Your task to perform on an android device: Clear all items from cart on amazon.com. Image 0: 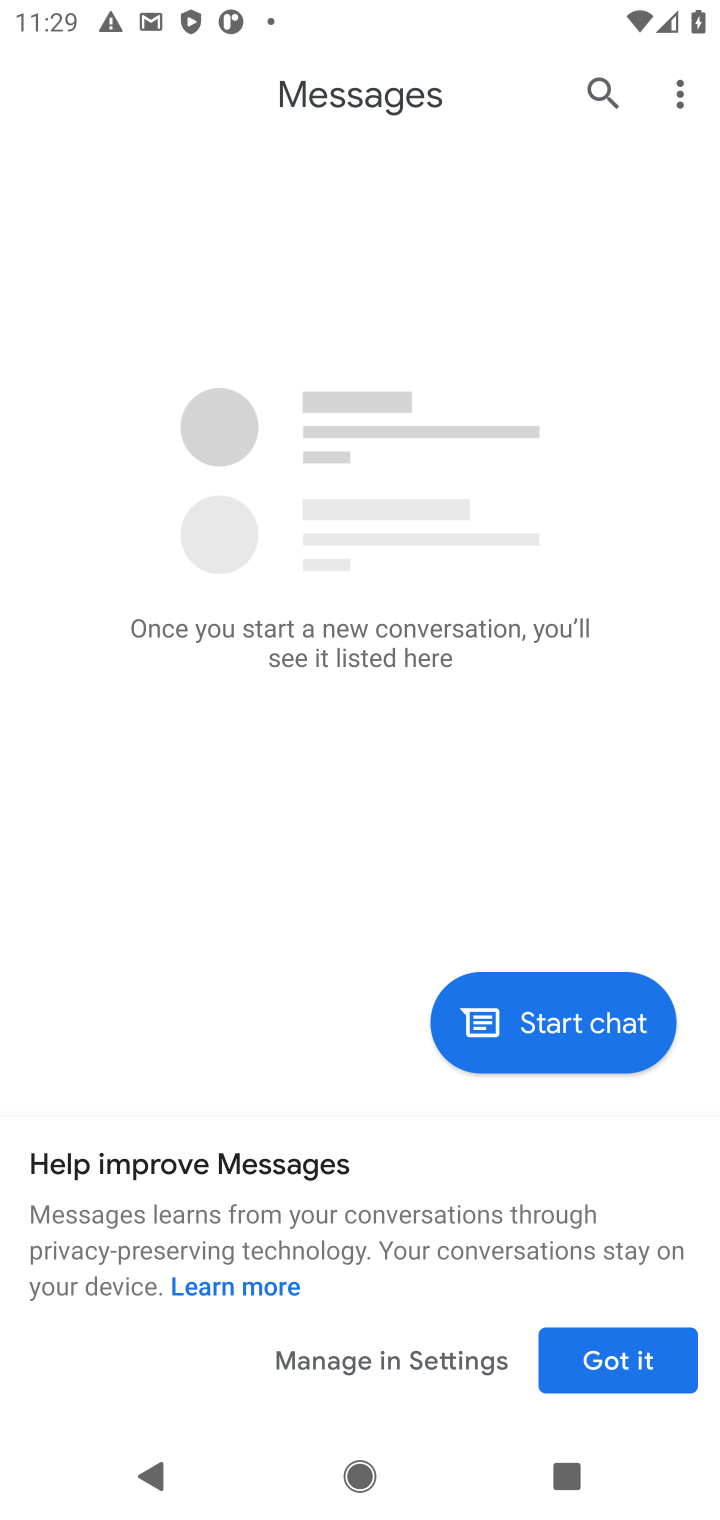
Step 0: click (642, 1355)
Your task to perform on an android device: Clear all items from cart on amazon.com. Image 1: 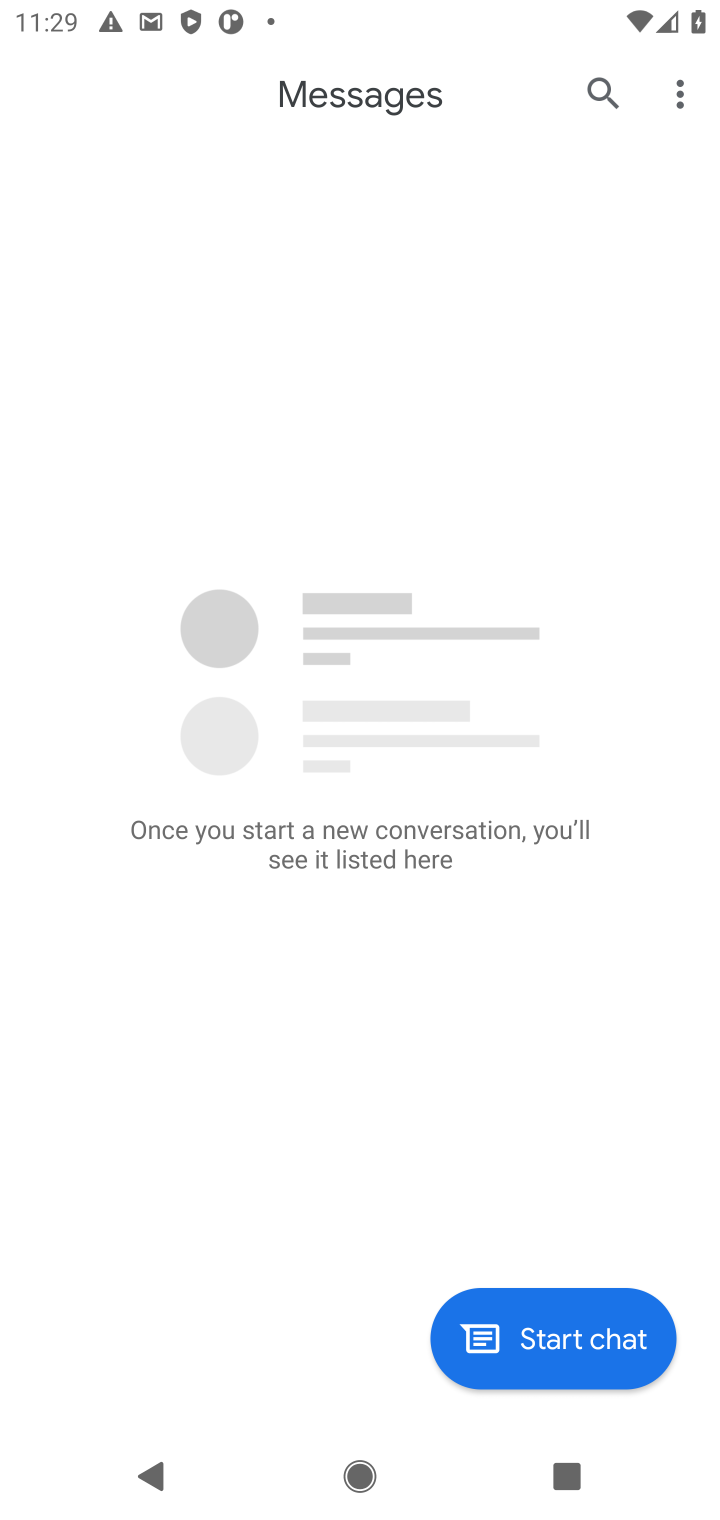
Step 1: press back button
Your task to perform on an android device: Clear all items from cart on amazon.com. Image 2: 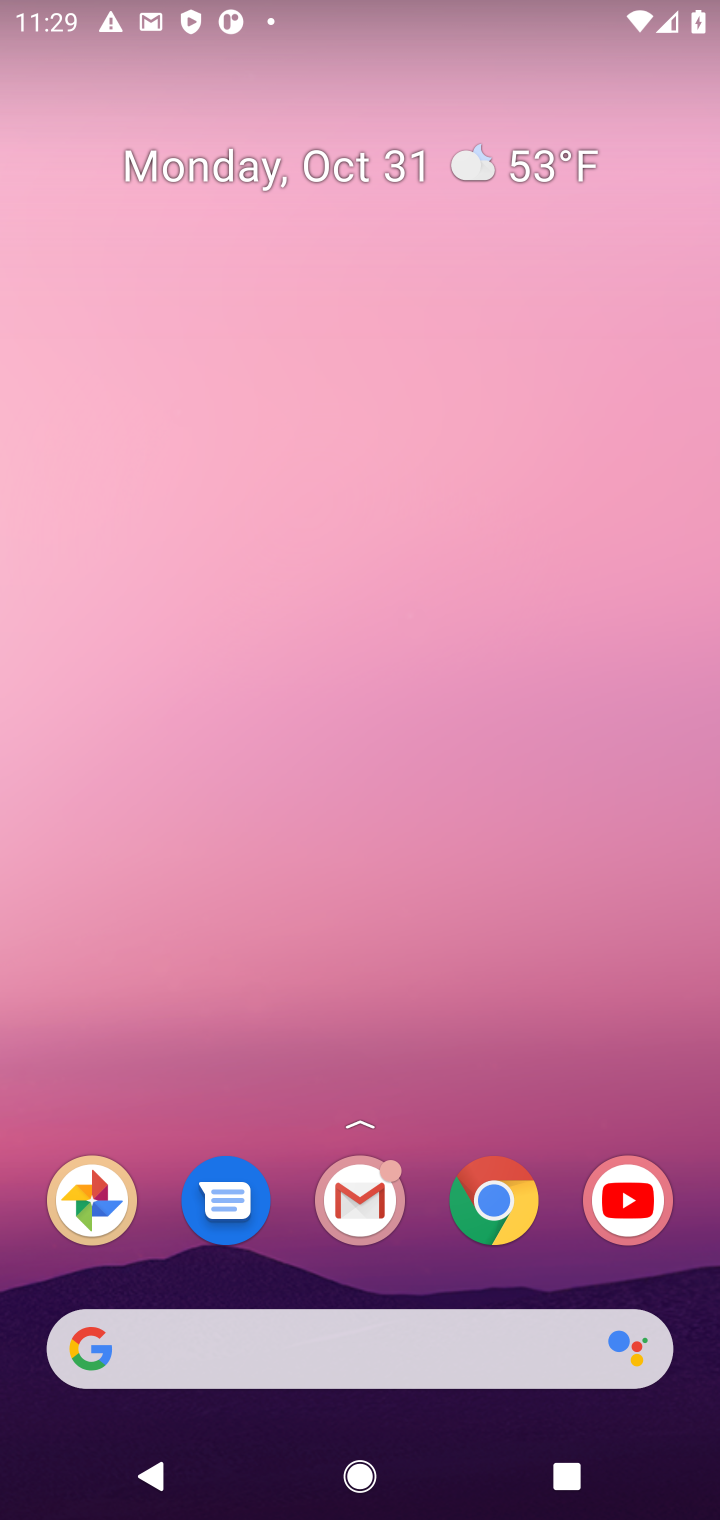
Step 2: press home button
Your task to perform on an android device: Clear all items from cart on amazon.com. Image 3: 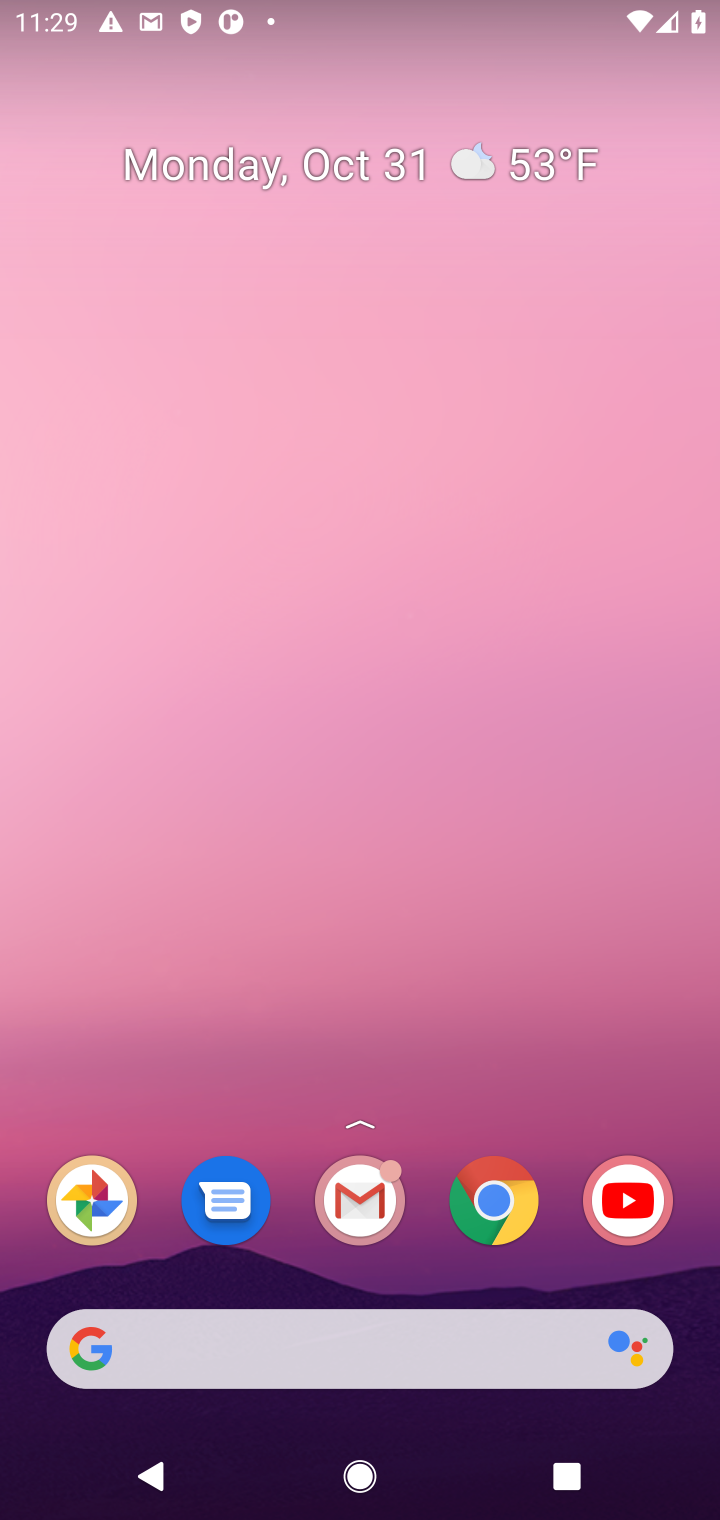
Step 3: click (488, 1199)
Your task to perform on an android device: Clear all items from cart on amazon.com. Image 4: 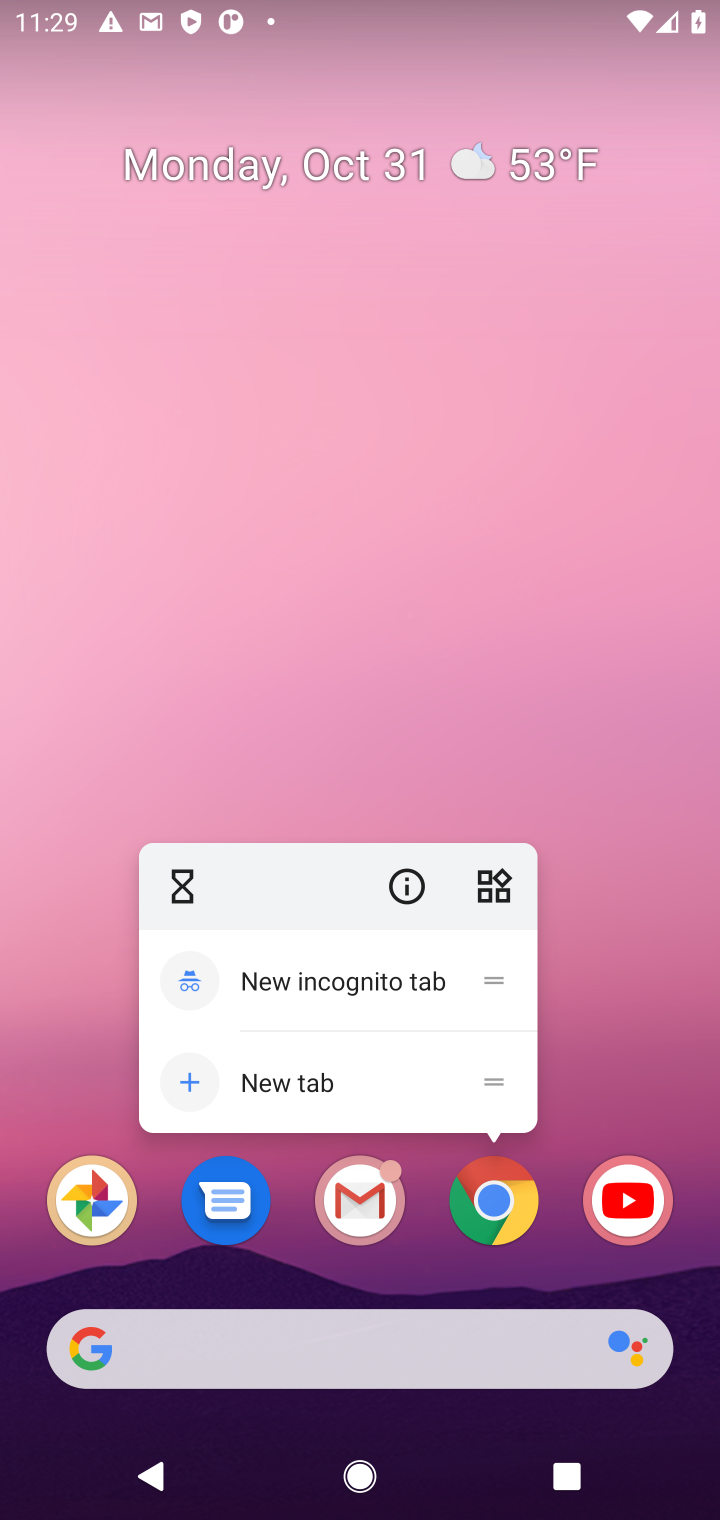
Step 4: click (490, 1213)
Your task to perform on an android device: Clear all items from cart on amazon.com. Image 5: 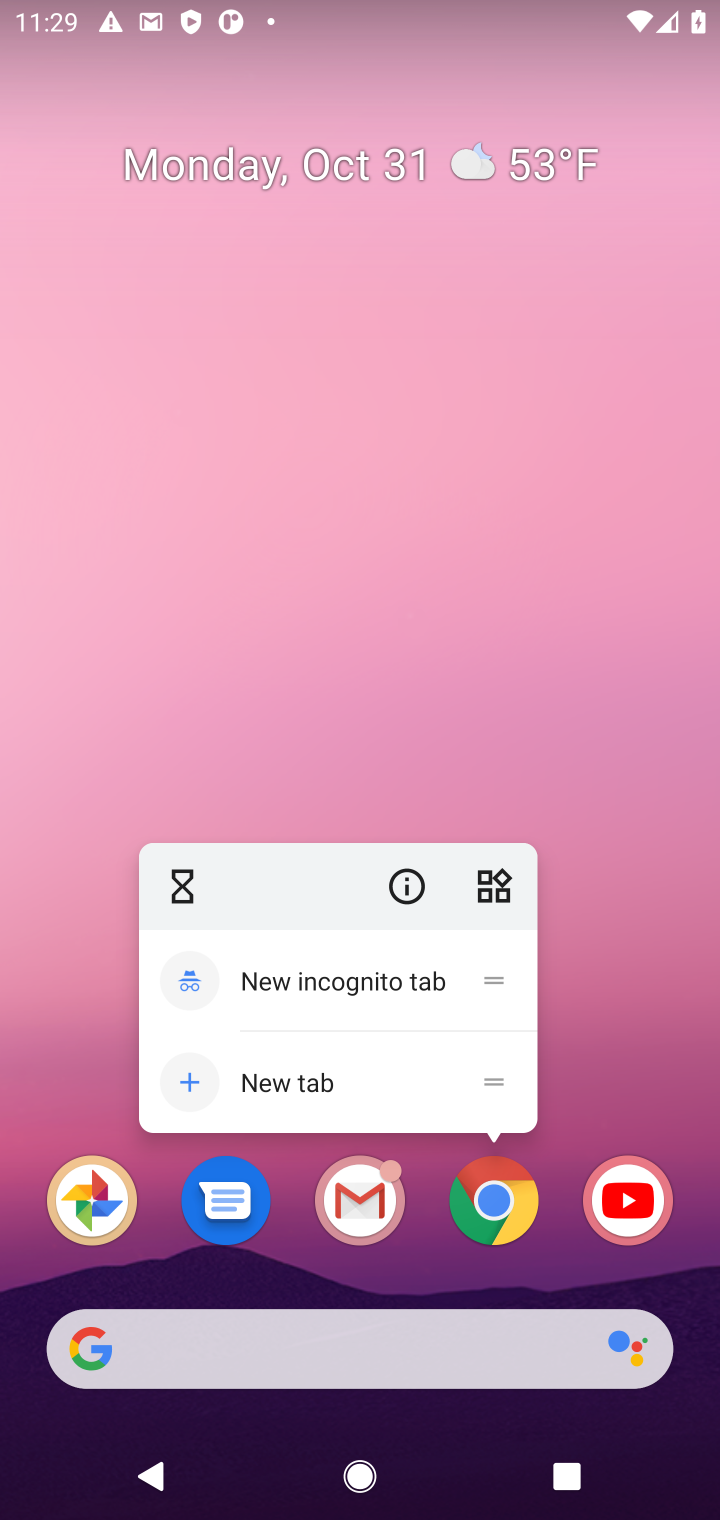
Step 5: click (494, 1223)
Your task to perform on an android device: Clear all items from cart on amazon.com. Image 6: 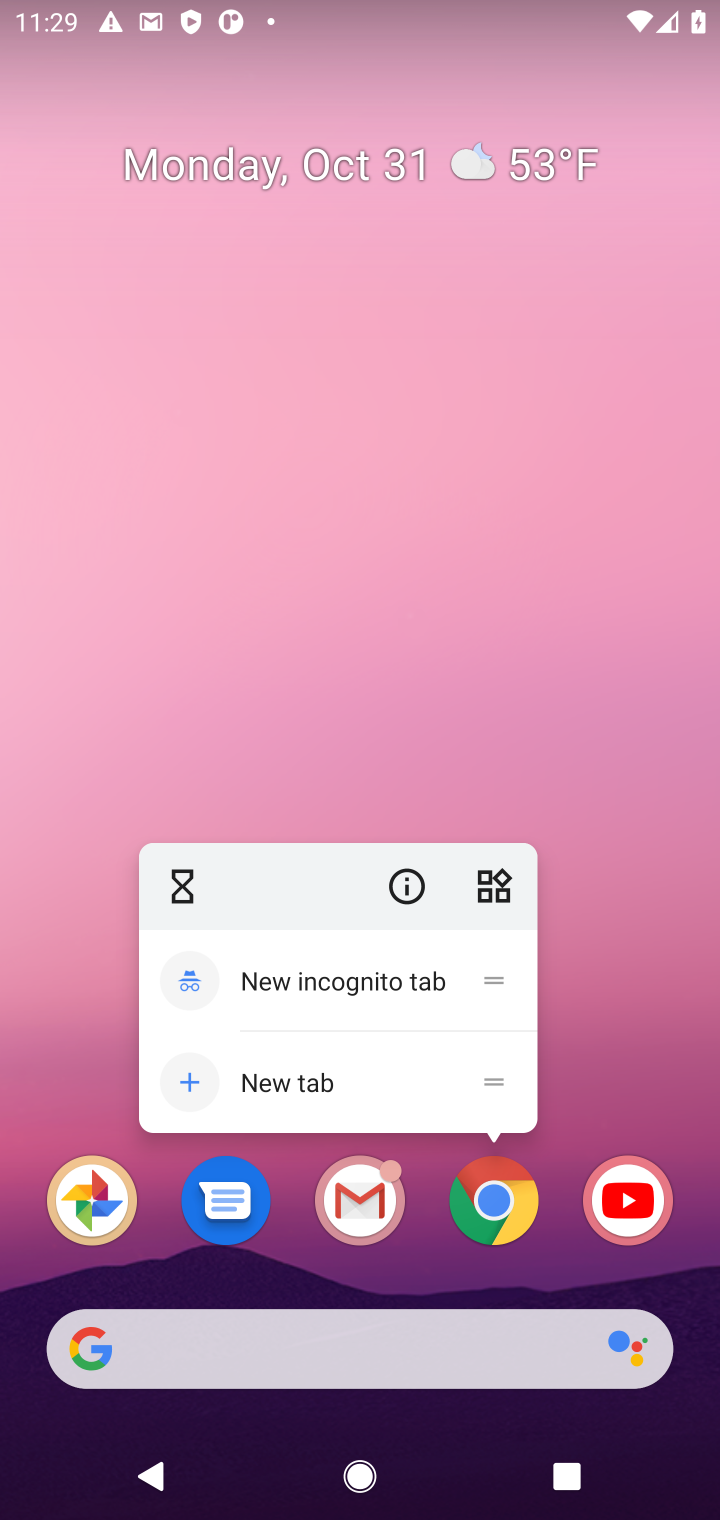
Step 6: click (500, 1213)
Your task to perform on an android device: Clear all items from cart on amazon.com. Image 7: 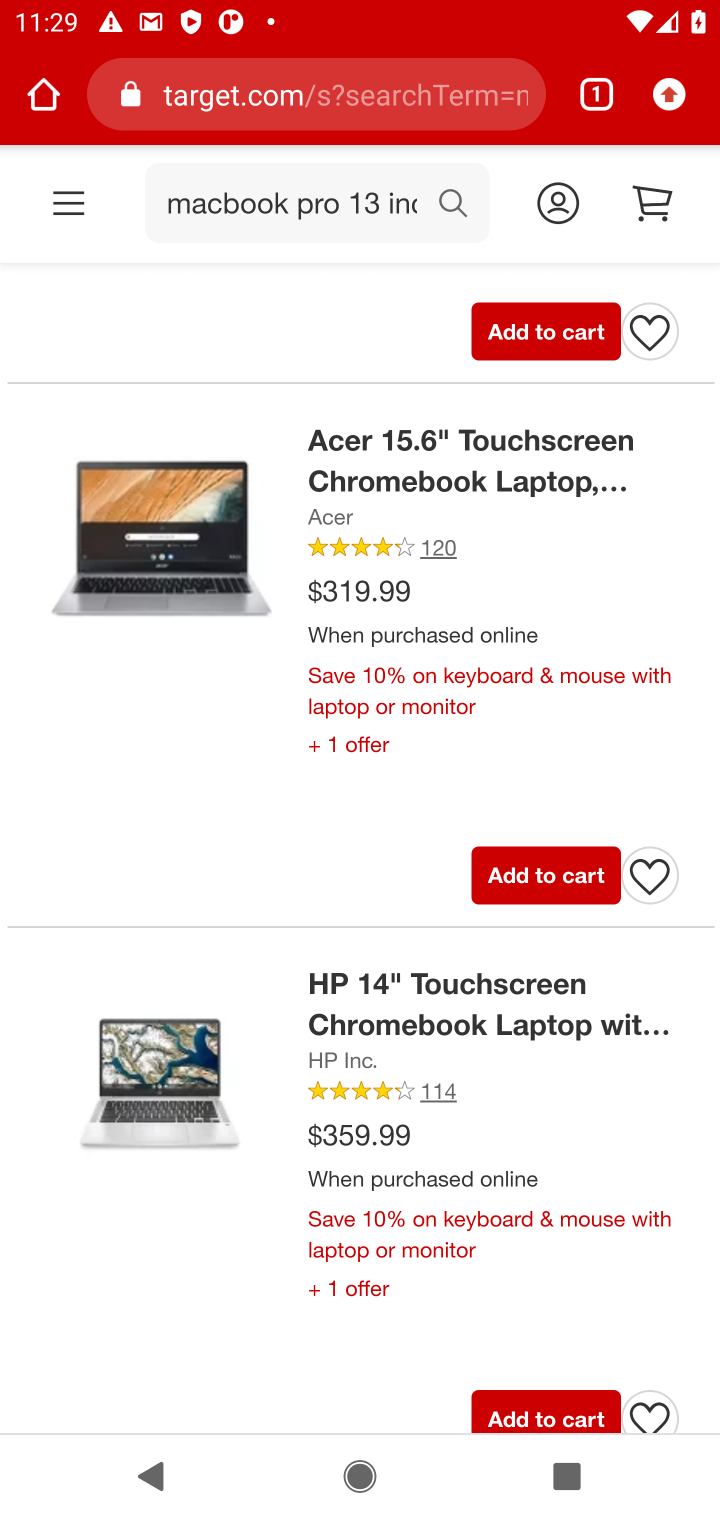
Step 7: click (240, 97)
Your task to perform on an android device: Clear all items from cart on amazon.com. Image 8: 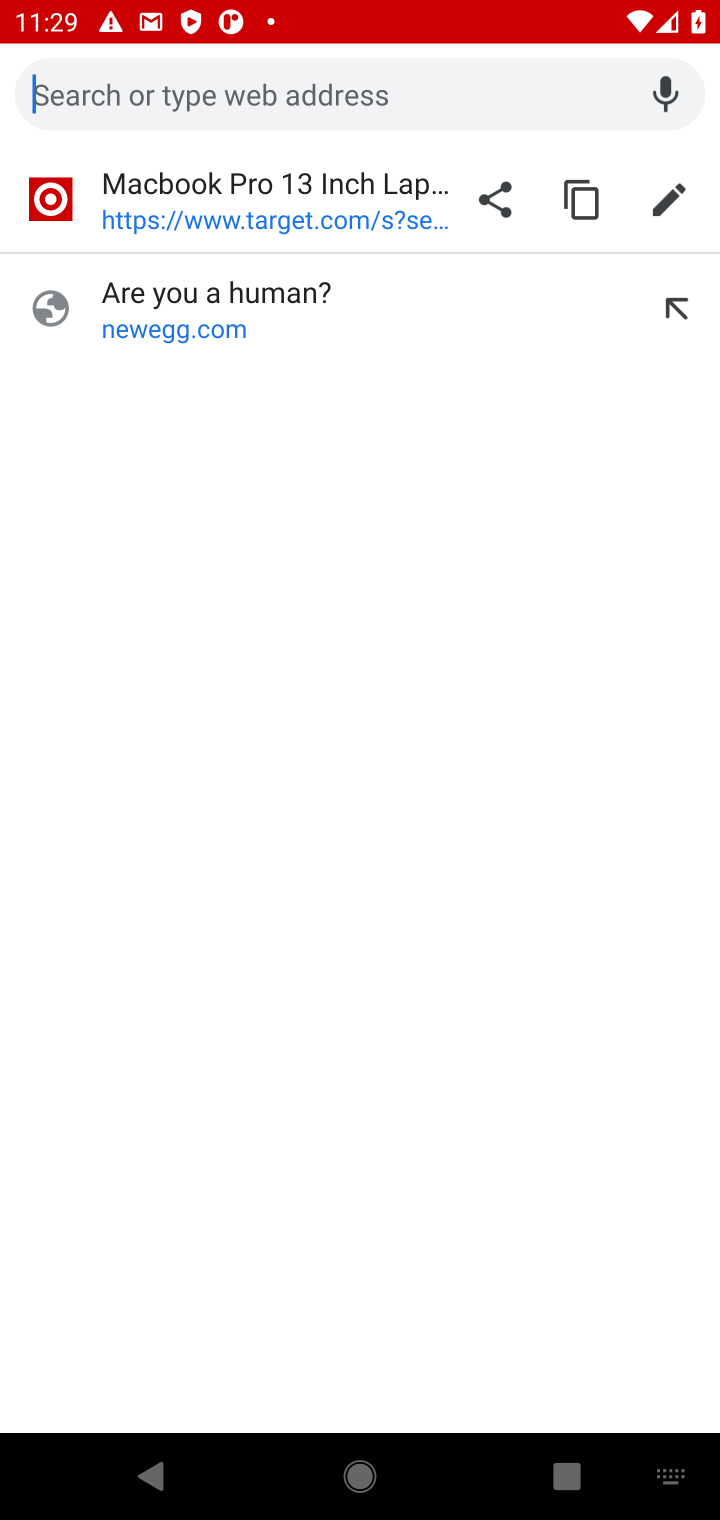
Step 8: type "amazon.com"
Your task to perform on an android device: Clear all items from cart on amazon.com. Image 9: 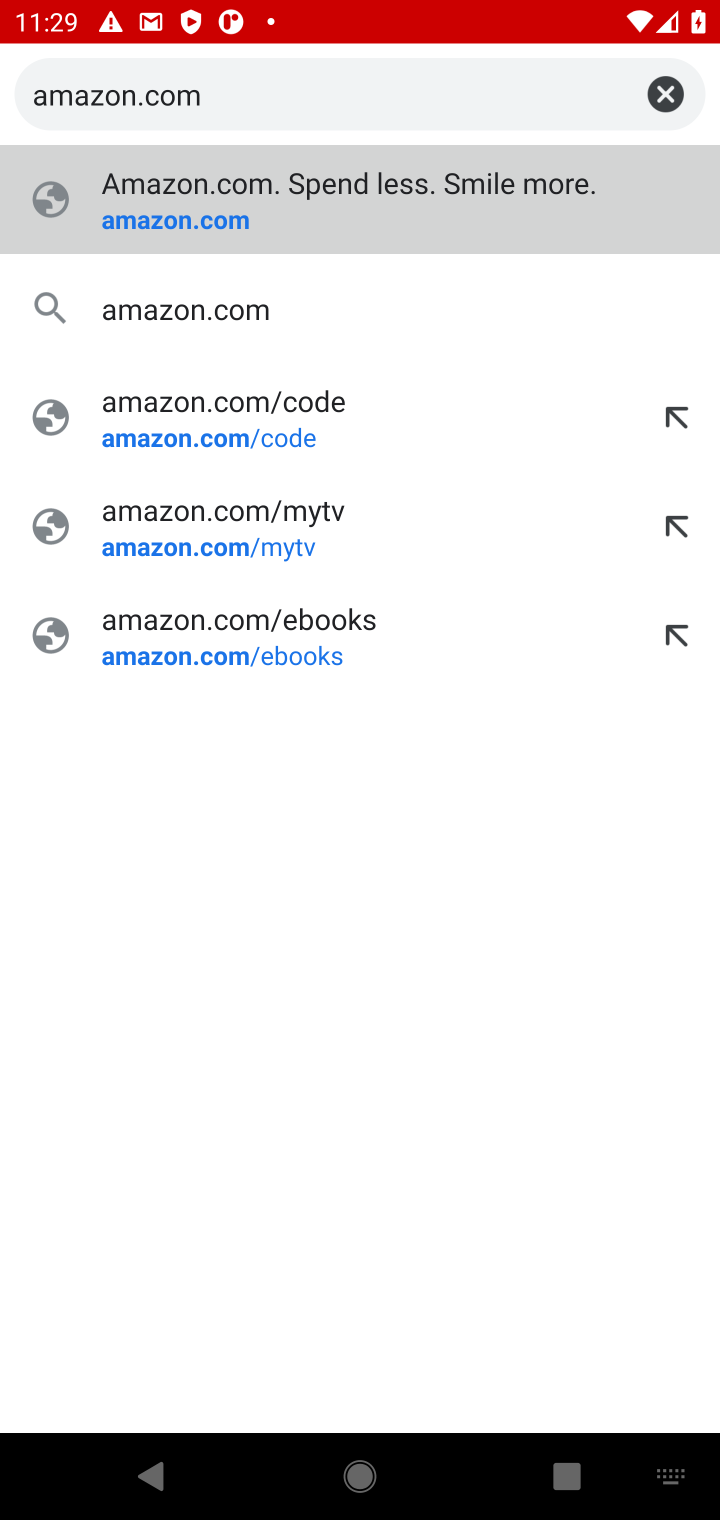
Step 9: type ""
Your task to perform on an android device: Clear all items from cart on amazon.com. Image 10: 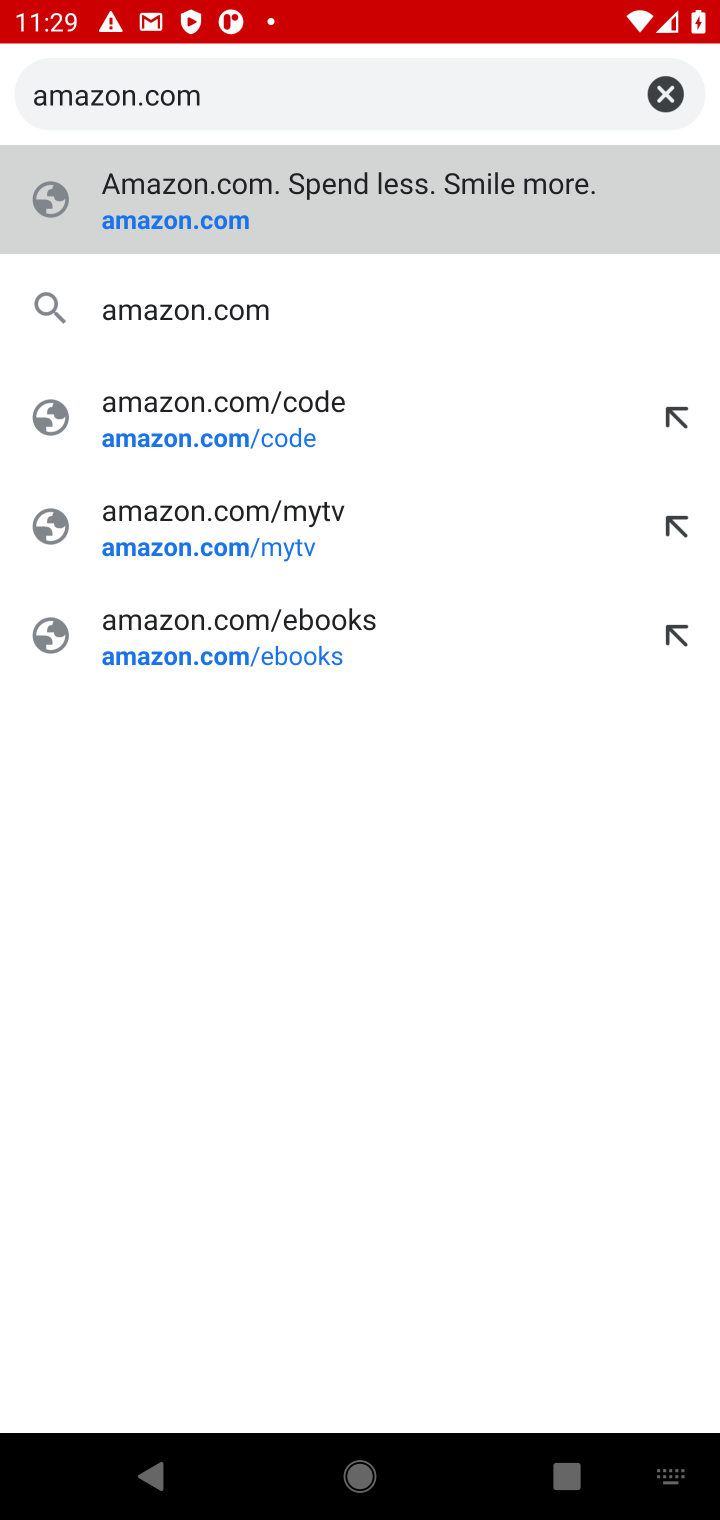
Step 10: click (380, 182)
Your task to perform on an android device: Clear all items from cart on amazon.com. Image 11: 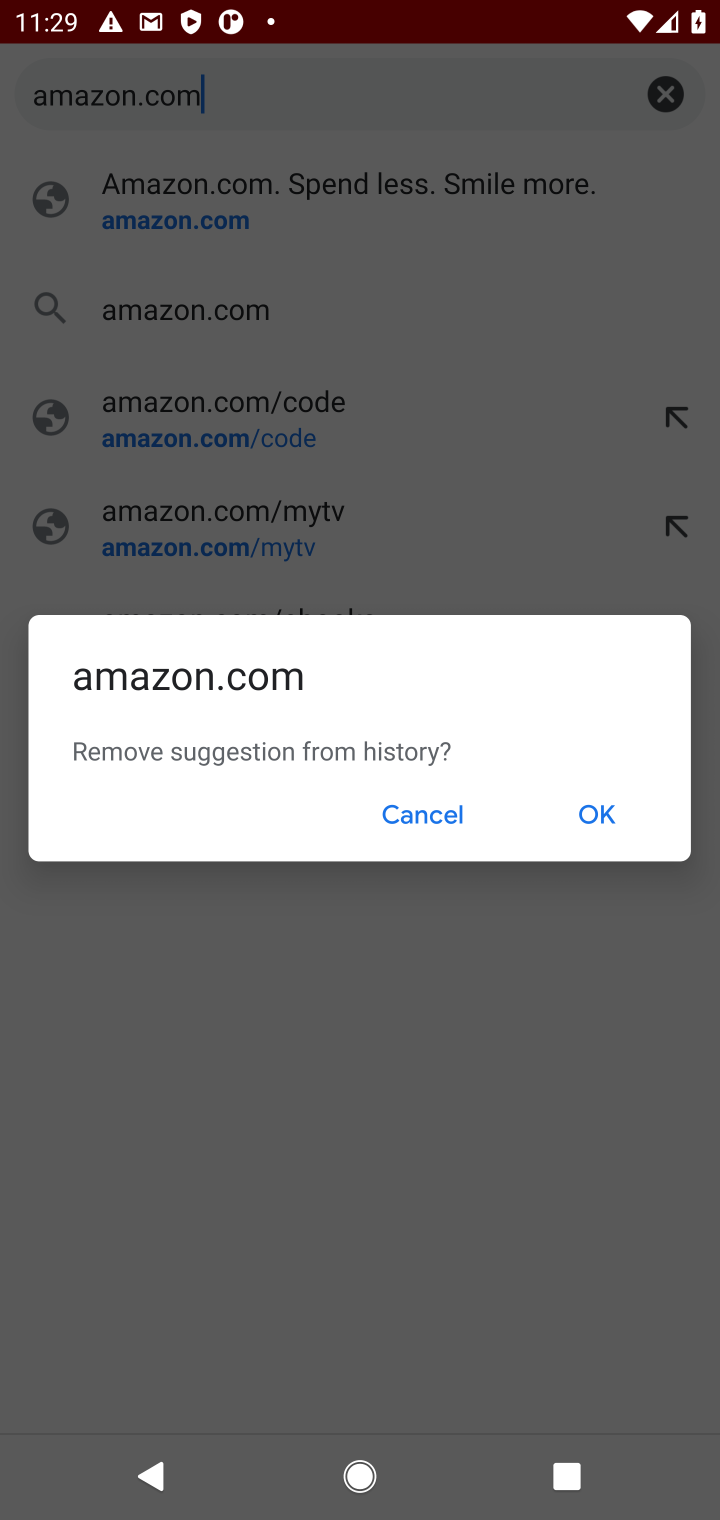
Step 11: click (457, 812)
Your task to perform on an android device: Clear all items from cart on amazon.com. Image 12: 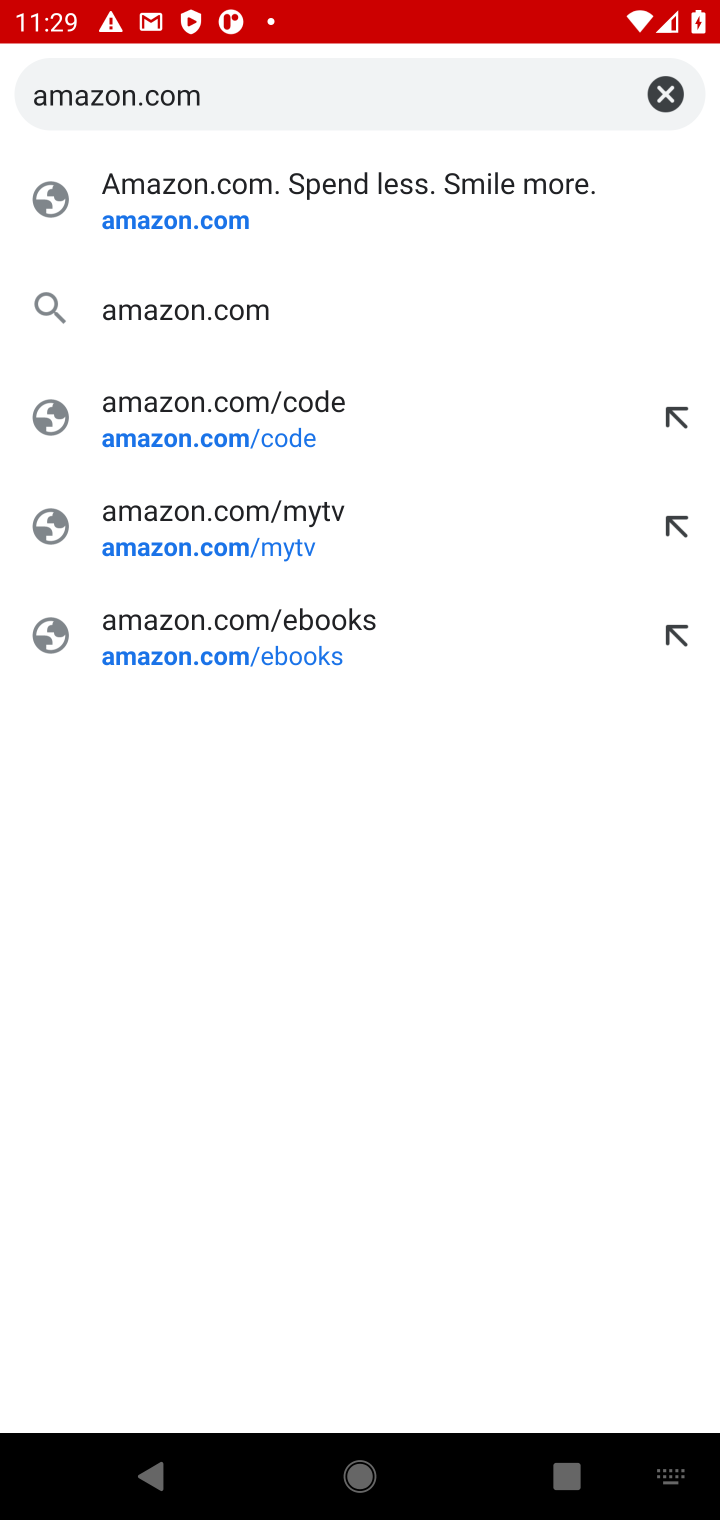
Step 12: click (283, 178)
Your task to perform on an android device: Clear all items from cart on amazon.com. Image 13: 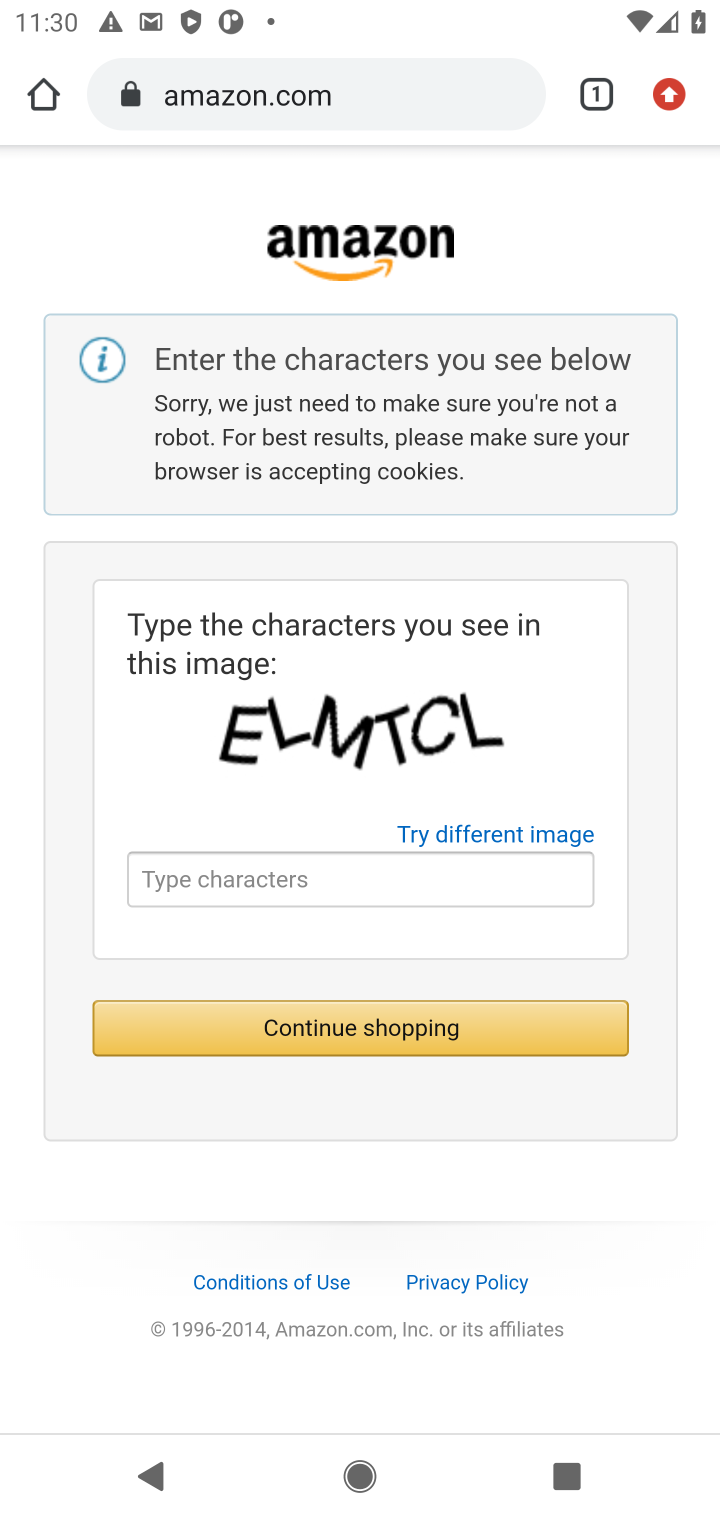
Step 13: click (269, 873)
Your task to perform on an android device: Clear all items from cart on amazon.com. Image 14: 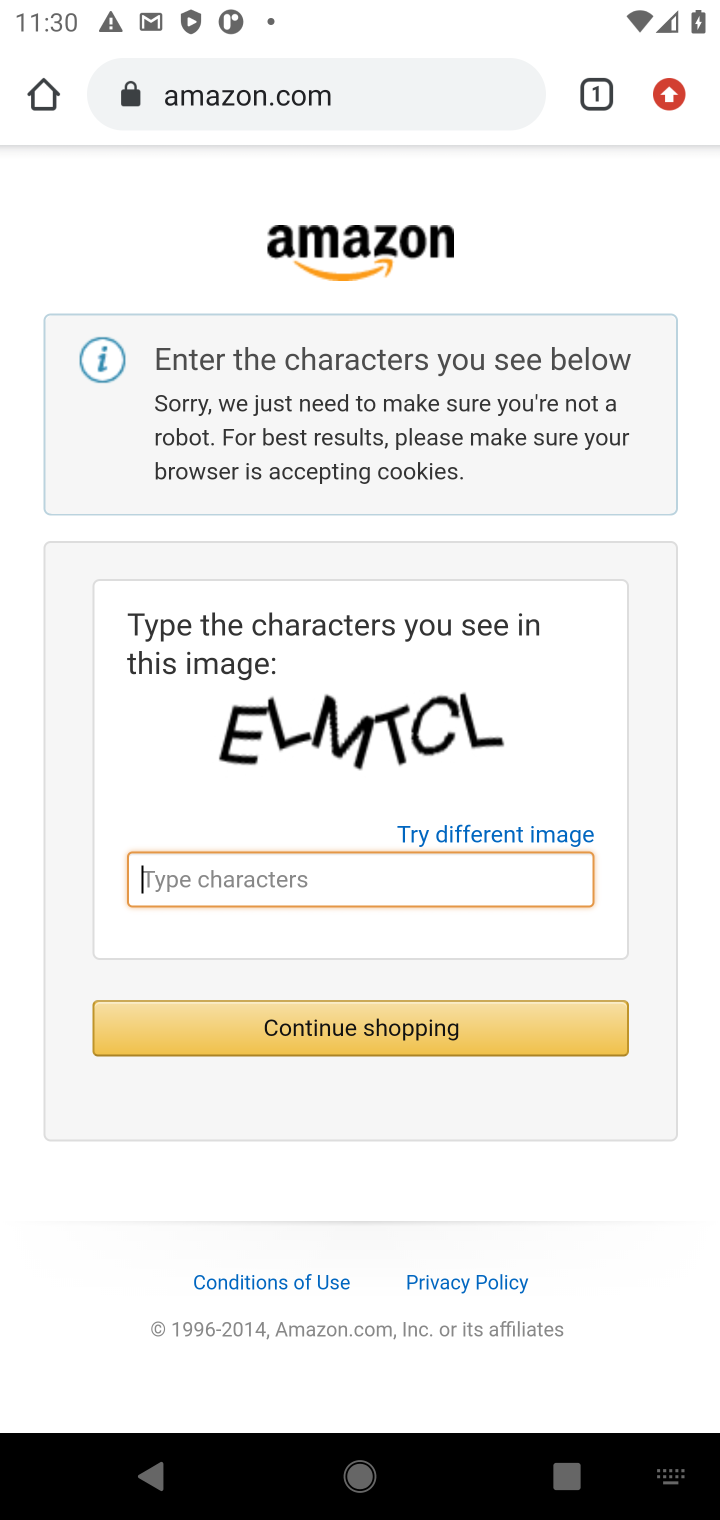
Step 14: type "ELMTCL"
Your task to perform on an android device: Clear all items from cart on amazon.com. Image 15: 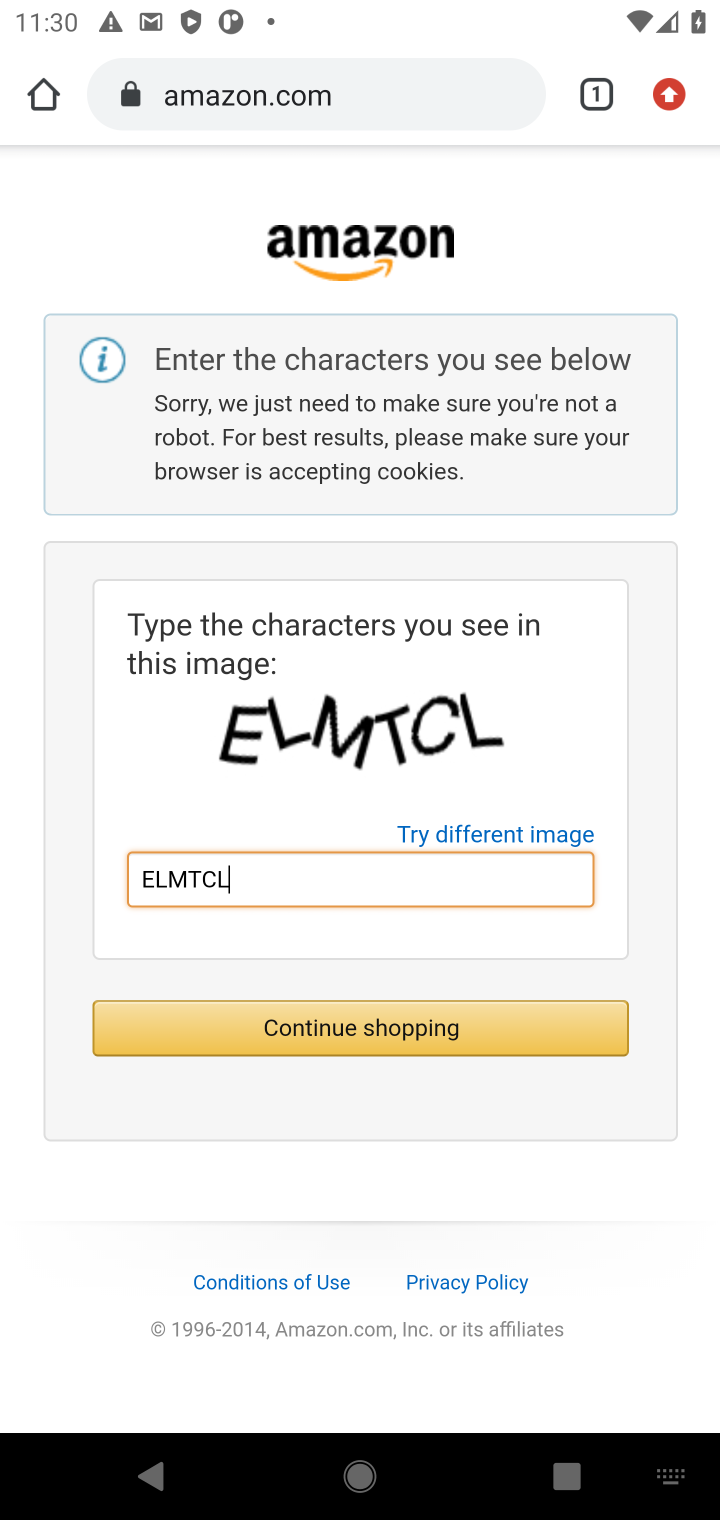
Step 15: type ""
Your task to perform on an android device: Clear all items from cart on amazon.com. Image 16: 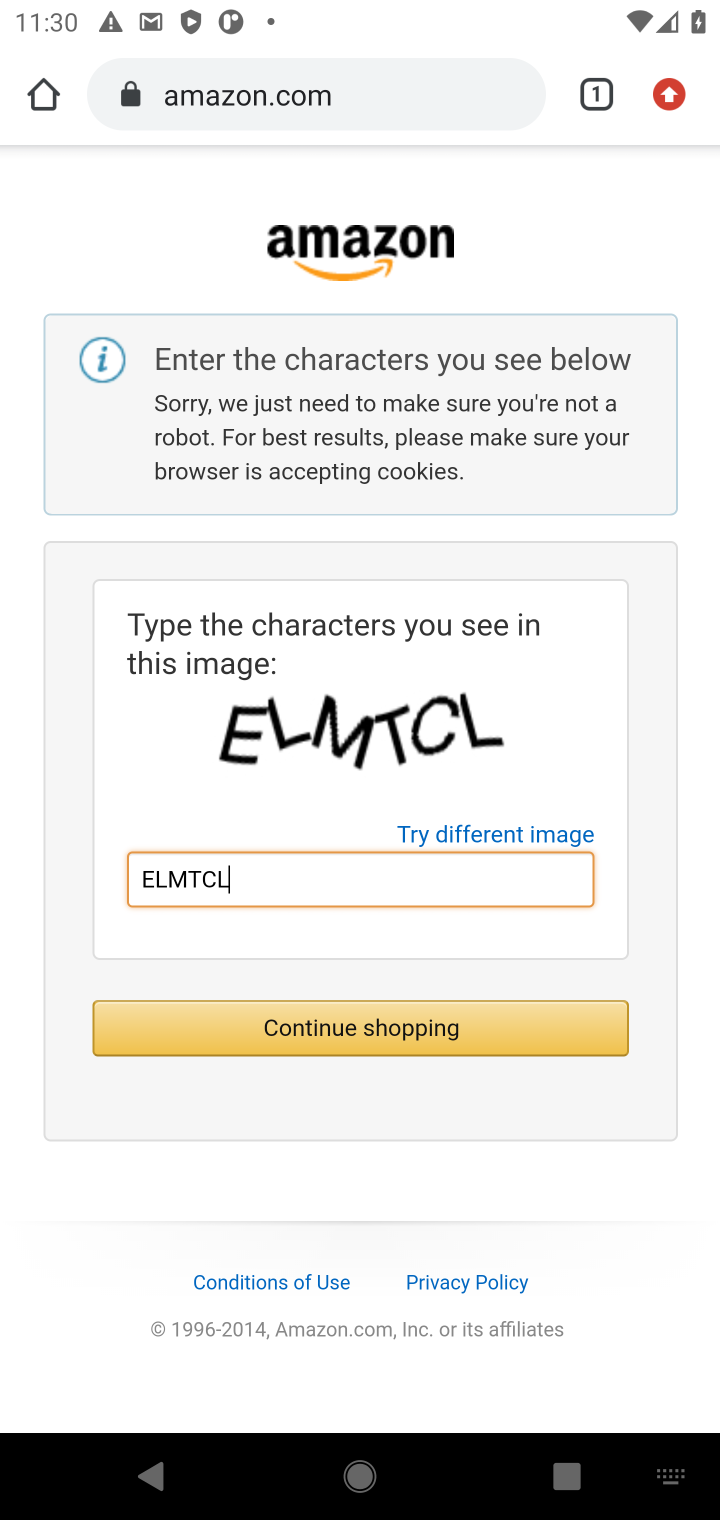
Step 16: click (323, 1000)
Your task to perform on an android device: Clear all items from cart on amazon.com. Image 17: 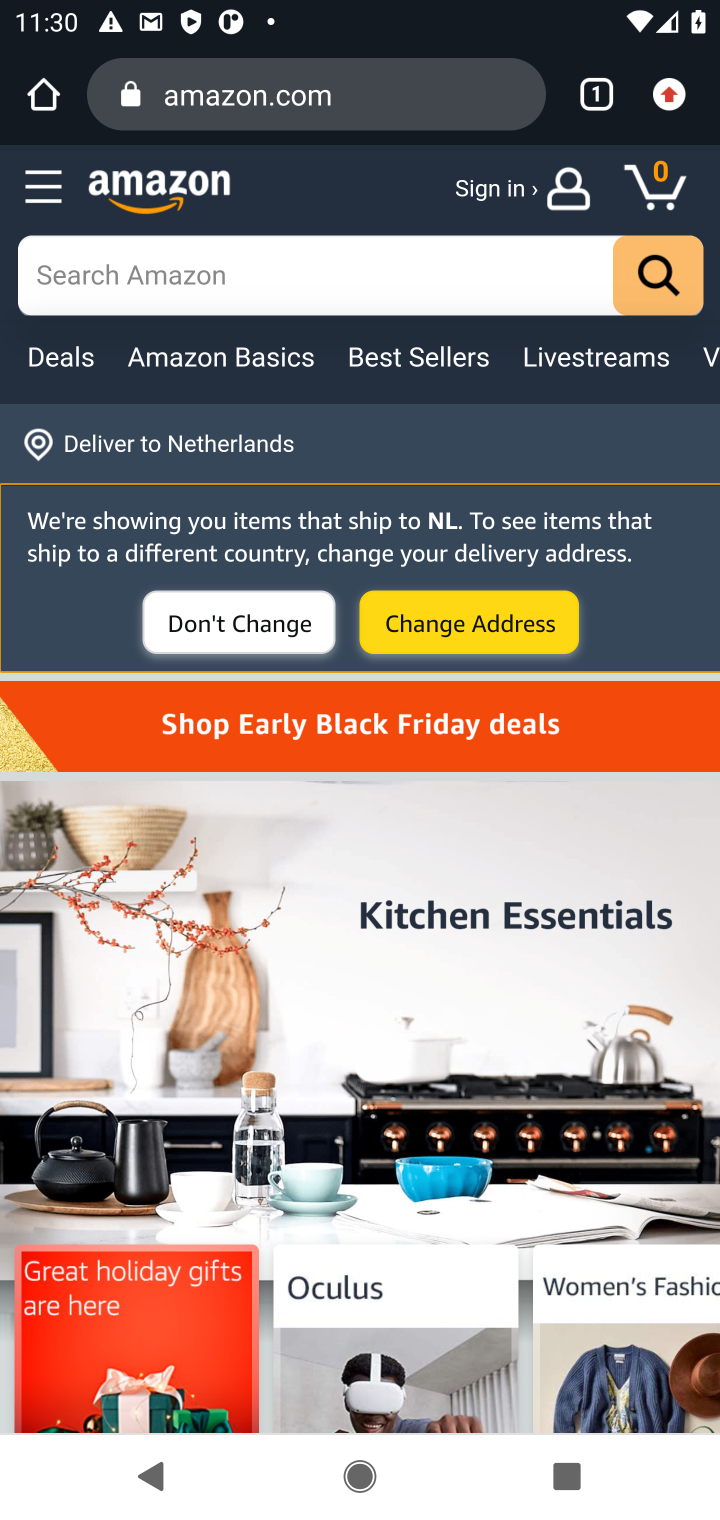
Step 17: click (647, 182)
Your task to perform on an android device: Clear all items from cart on amazon.com. Image 18: 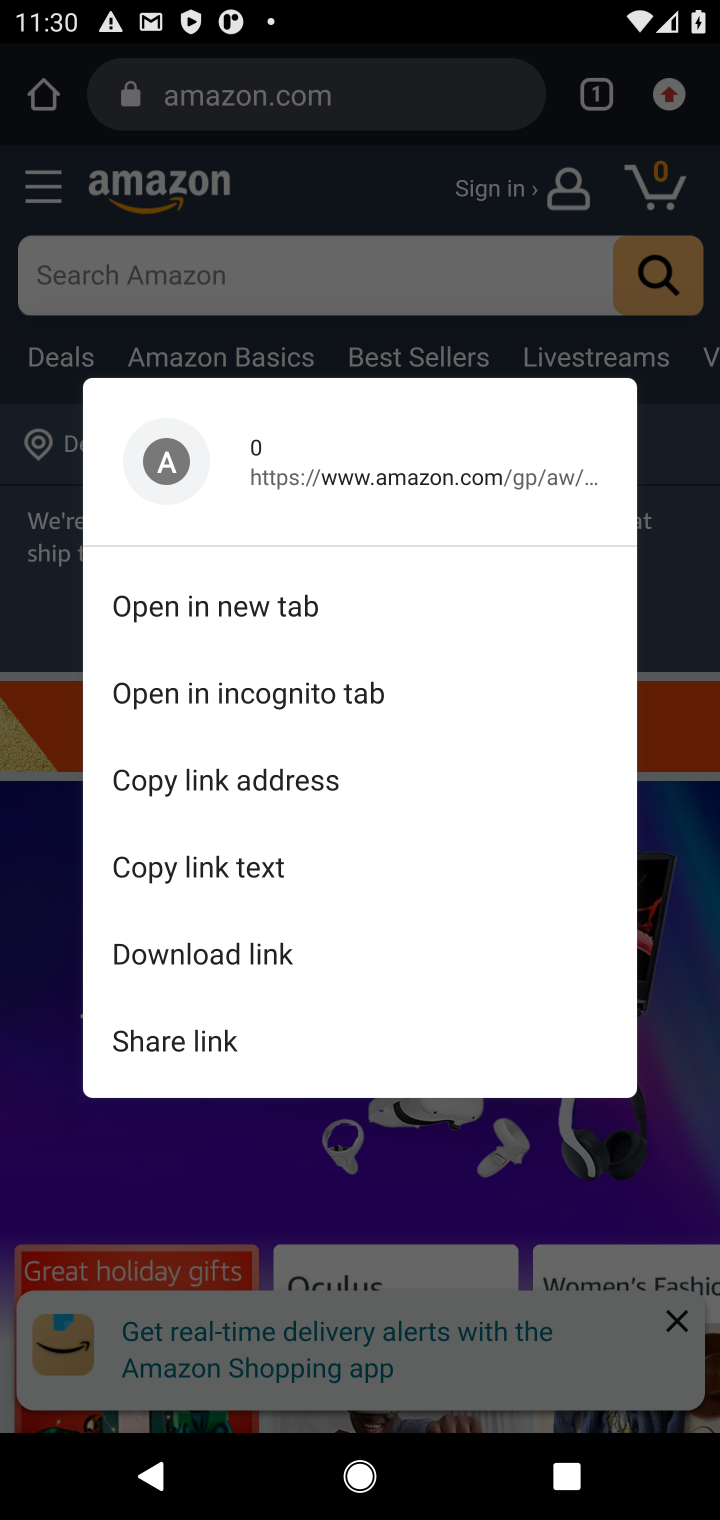
Step 18: click (647, 182)
Your task to perform on an android device: Clear all items from cart on amazon.com. Image 19: 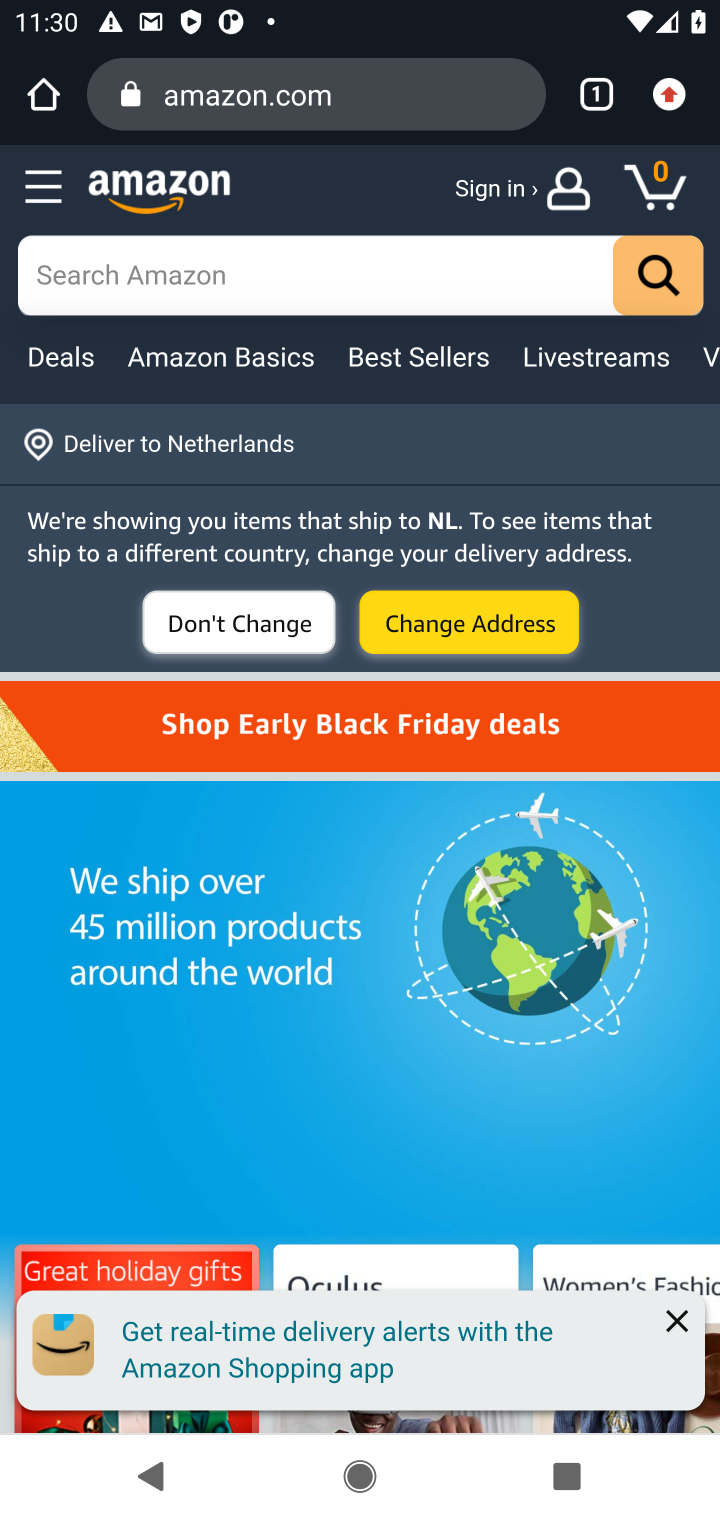
Step 19: click (647, 182)
Your task to perform on an android device: Clear all items from cart on amazon.com. Image 20: 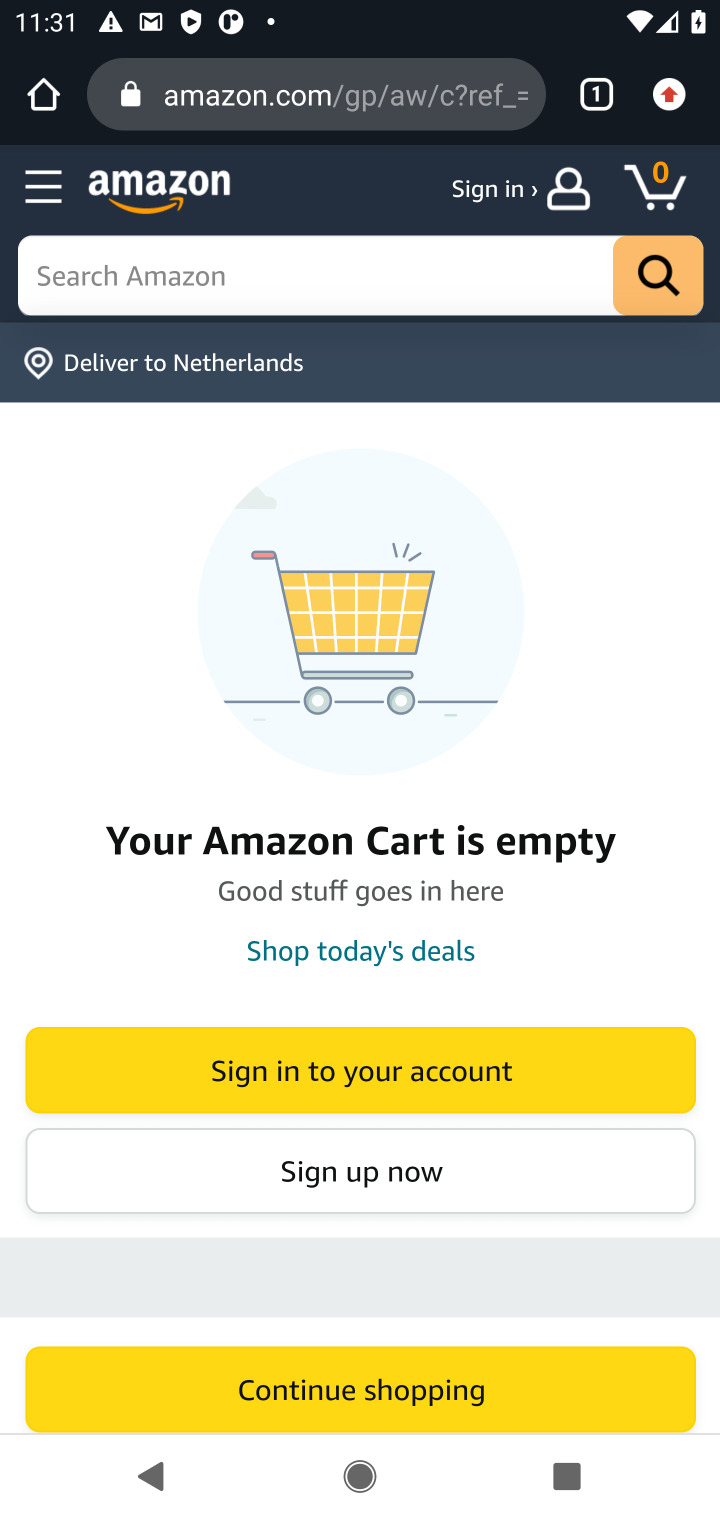
Step 20: click (684, 192)
Your task to perform on an android device: Clear all items from cart on amazon.com. Image 21: 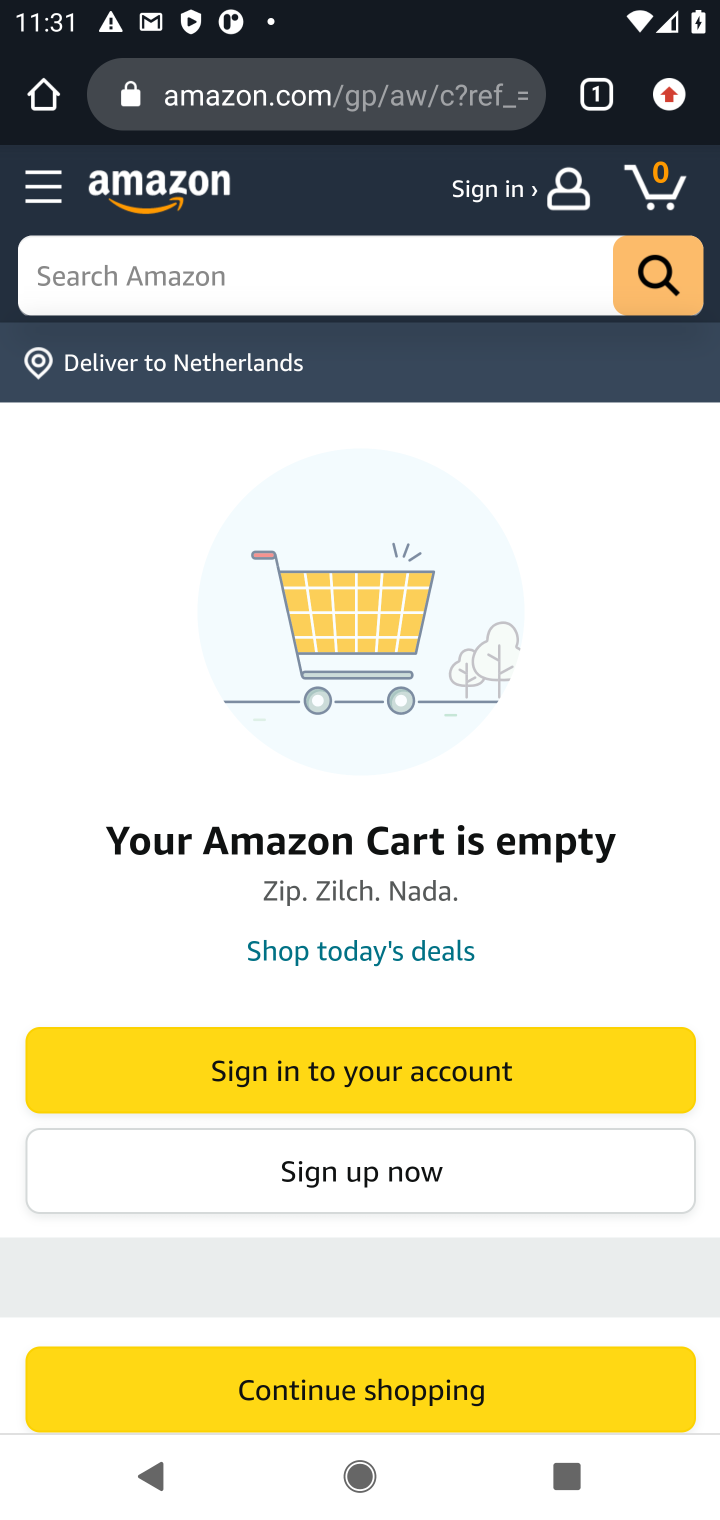
Step 21: click (547, 705)
Your task to perform on an android device: Clear all items from cart on amazon.com. Image 22: 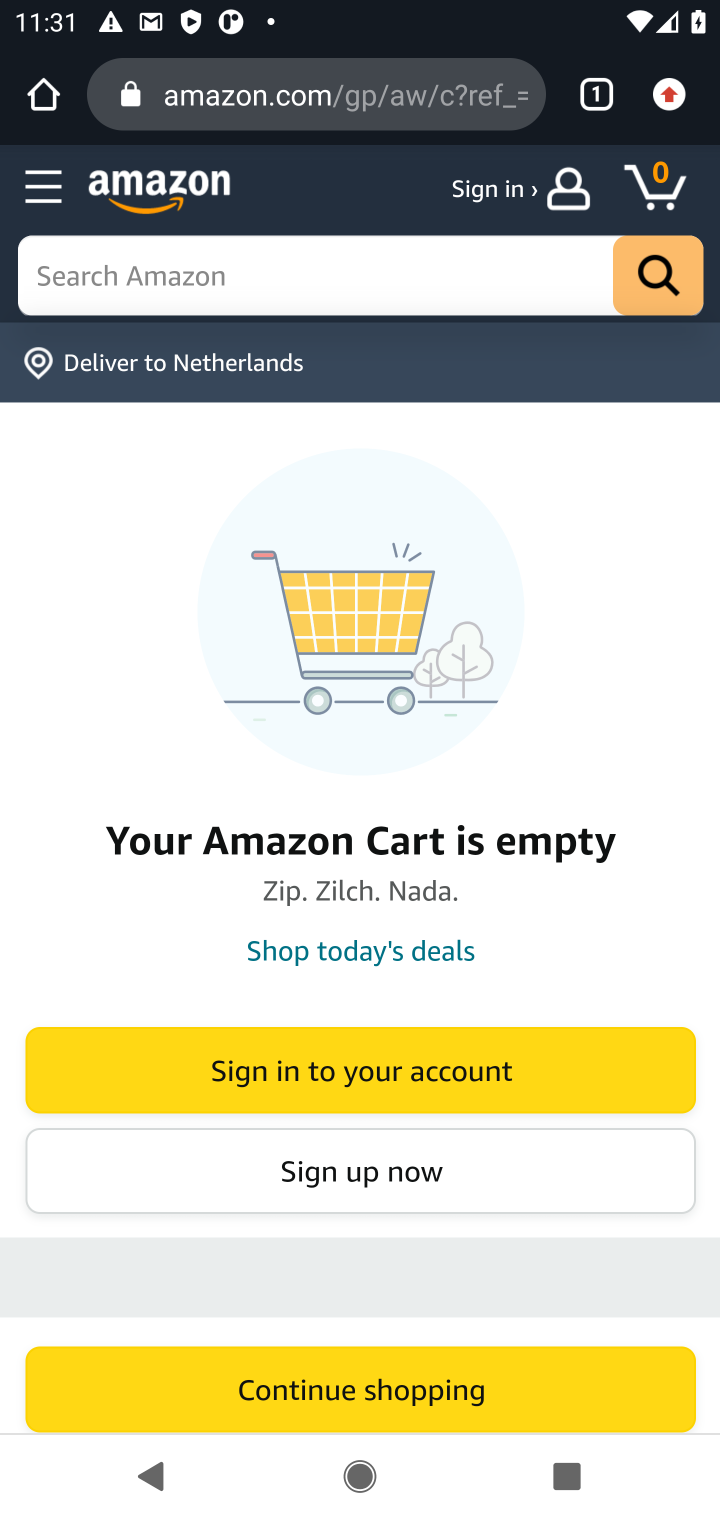
Step 22: press back button
Your task to perform on an android device: Clear all items from cart on amazon.com. Image 23: 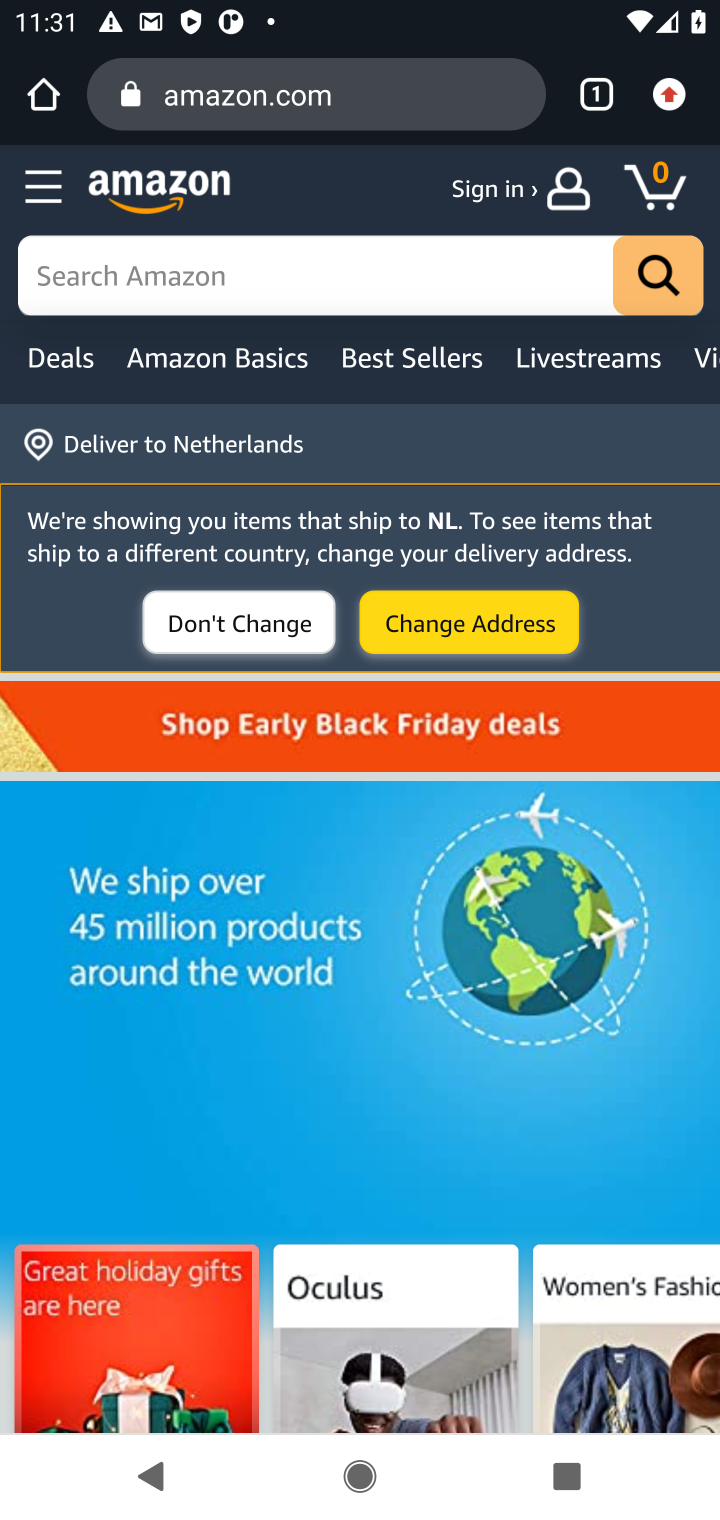
Step 23: drag from (436, 1024) to (577, 583)
Your task to perform on an android device: Clear all items from cart on amazon.com. Image 24: 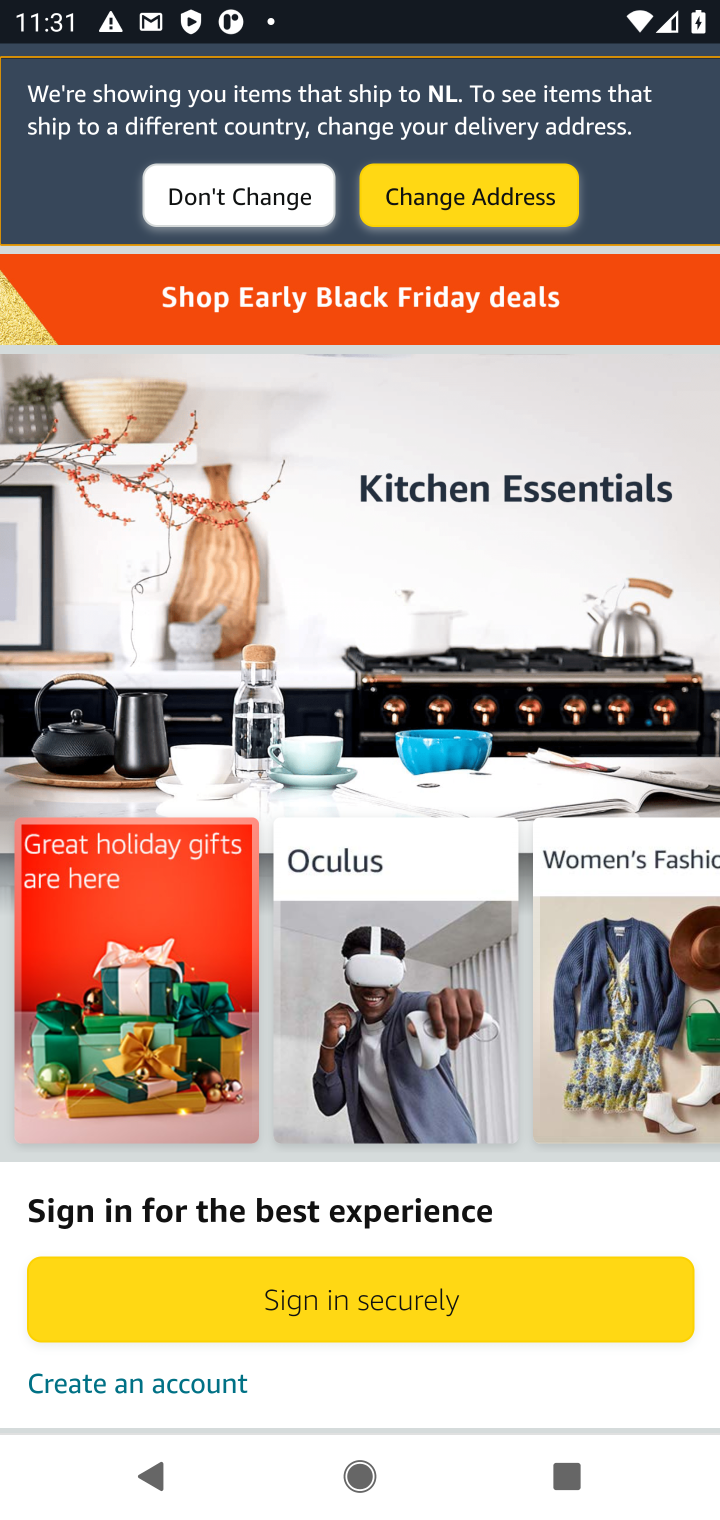
Step 24: drag from (557, 1021) to (607, 755)
Your task to perform on an android device: Clear all items from cart on amazon.com. Image 25: 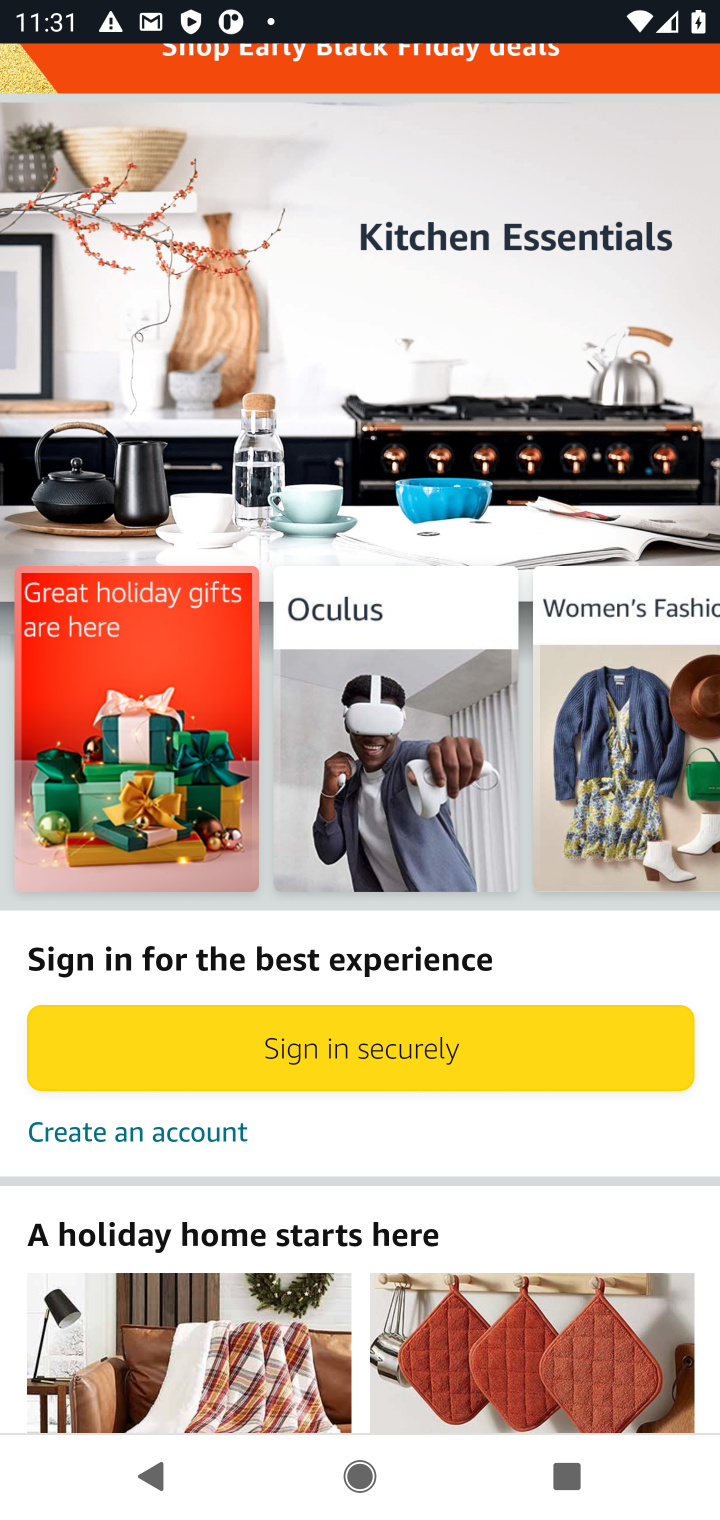
Step 25: drag from (506, 1013) to (552, 530)
Your task to perform on an android device: Clear all items from cart on amazon.com. Image 26: 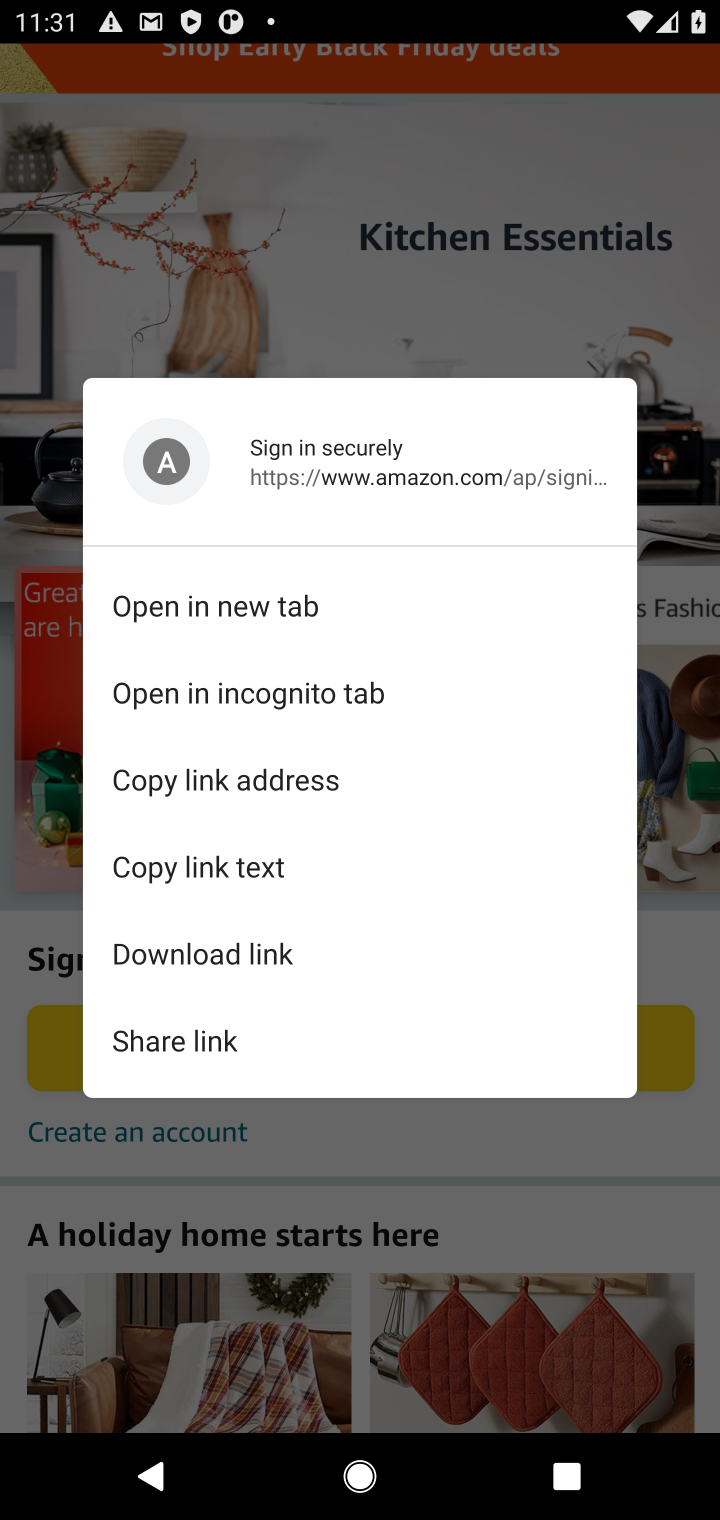
Step 26: click (661, 1128)
Your task to perform on an android device: Clear all items from cart on amazon.com. Image 27: 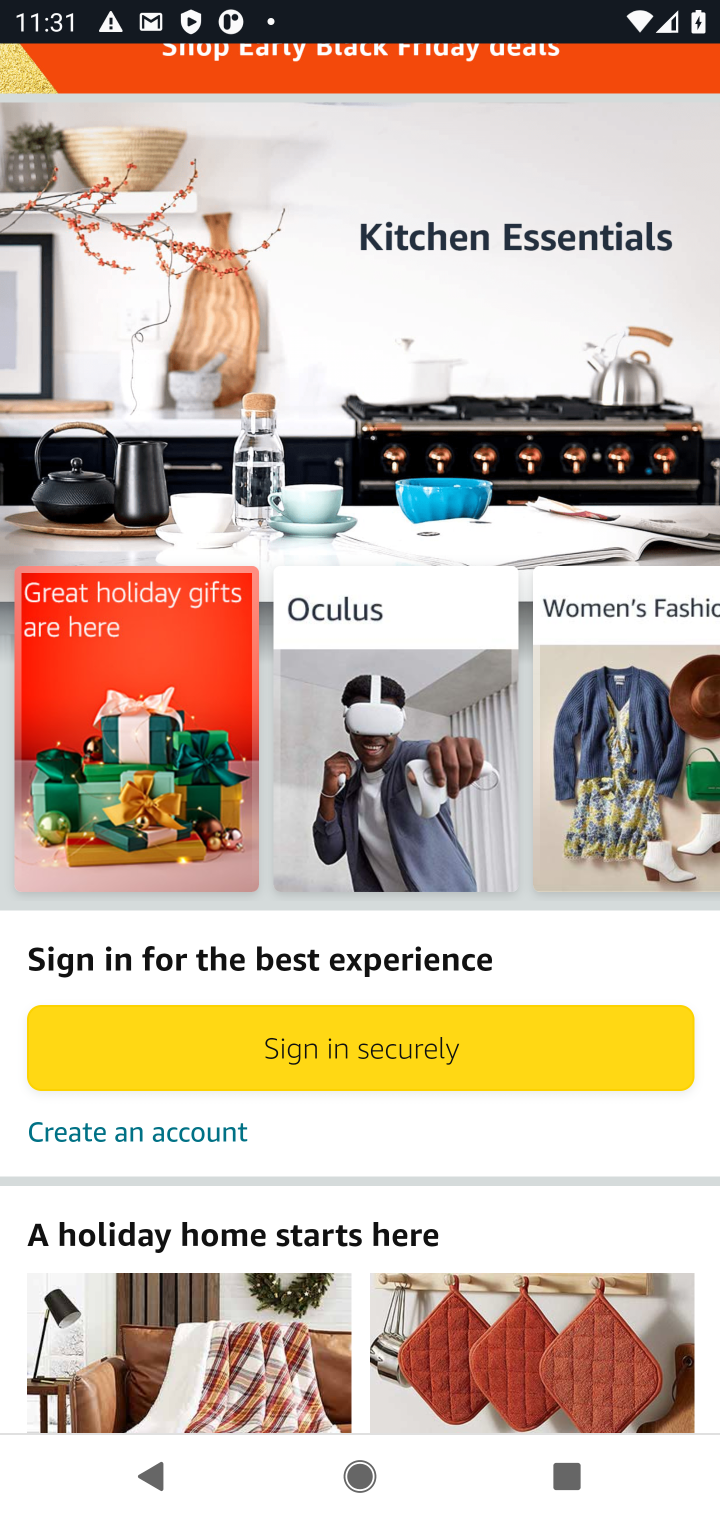
Step 27: task complete